Your task to perform on an android device: Open maps Image 0: 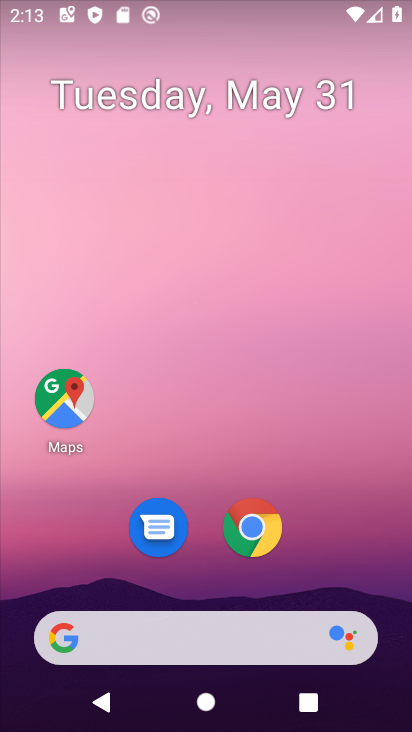
Step 0: drag from (393, 570) to (365, 172)
Your task to perform on an android device: Open maps Image 1: 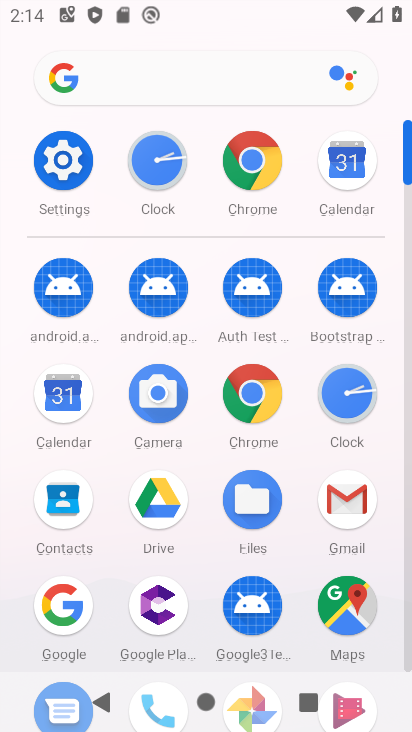
Step 1: click (358, 601)
Your task to perform on an android device: Open maps Image 2: 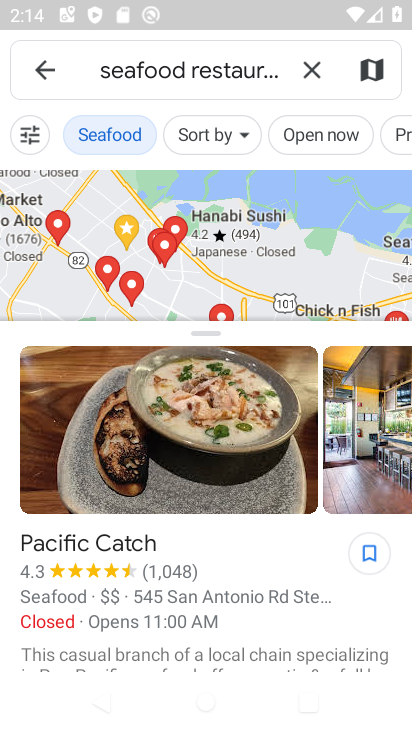
Step 2: task complete